Your task to perform on an android device: View the shopping cart on walmart. Image 0: 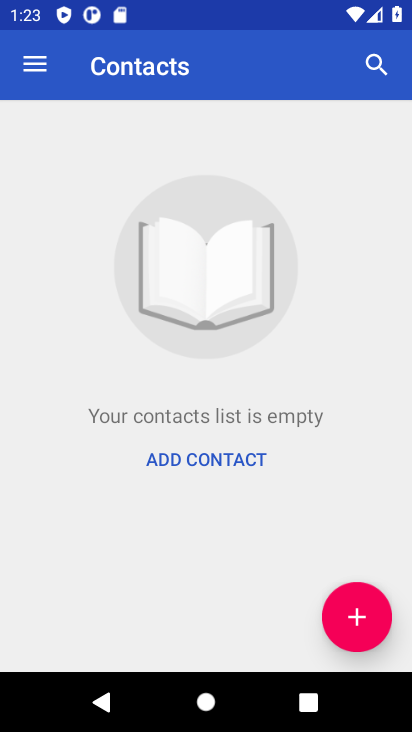
Step 0: press home button
Your task to perform on an android device: View the shopping cart on walmart. Image 1: 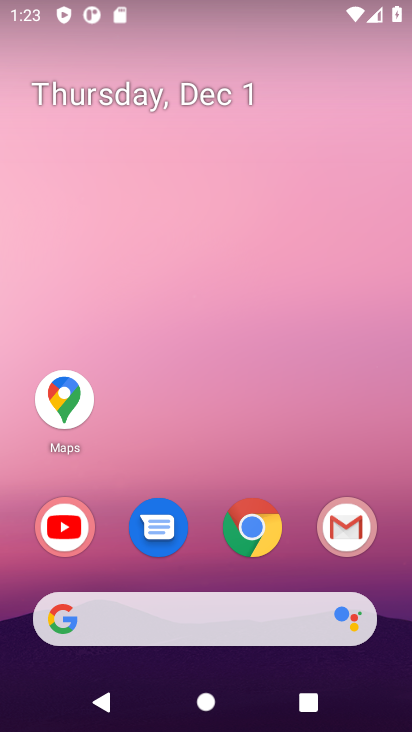
Step 1: click (262, 533)
Your task to perform on an android device: View the shopping cart on walmart. Image 2: 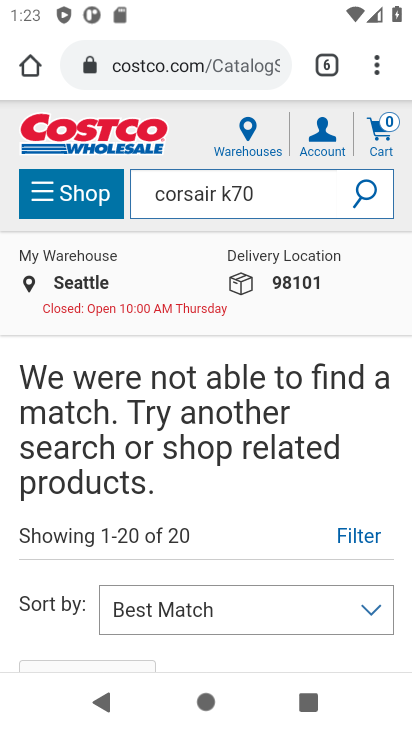
Step 2: click (182, 57)
Your task to perform on an android device: View the shopping cart on walmart. Image 3: 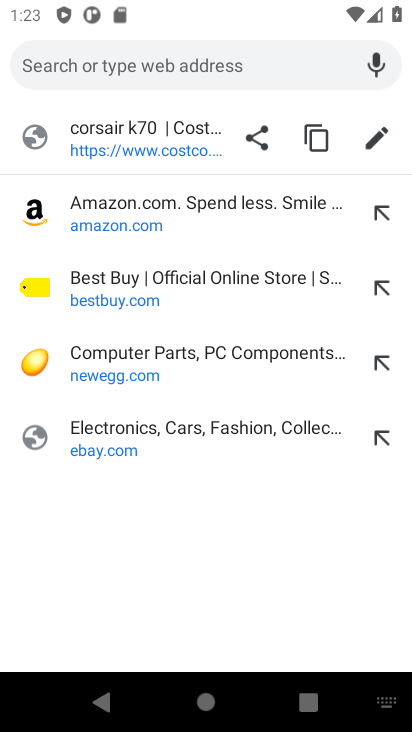
Step 3: type "walmart.com"
Your task to perform on an android device: View the shopping cart on walmart. Image 4: 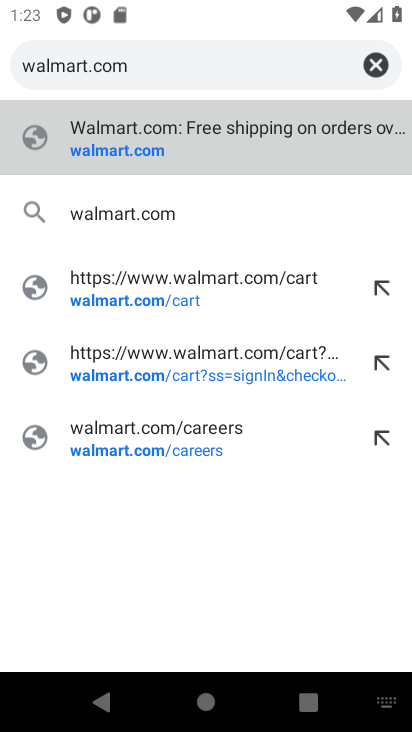
Step 4: click (103, 148)
Your task to perform on an android device: View the shopping cart on walmart. Image 5: 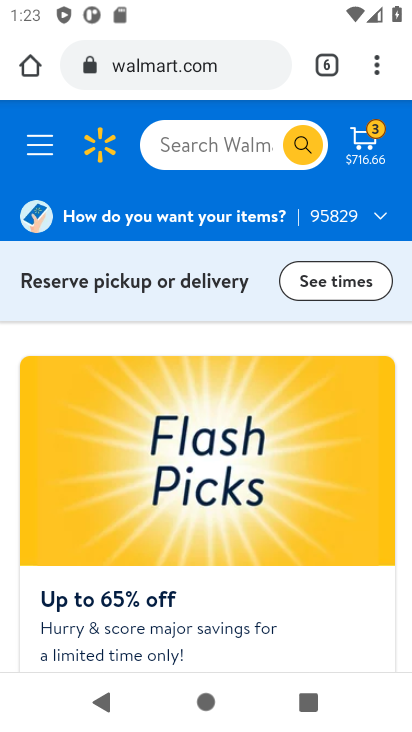
Step 5: click (368, 154)
Your task to perform on an android device: View the shopping cart on walmart. Image 6: 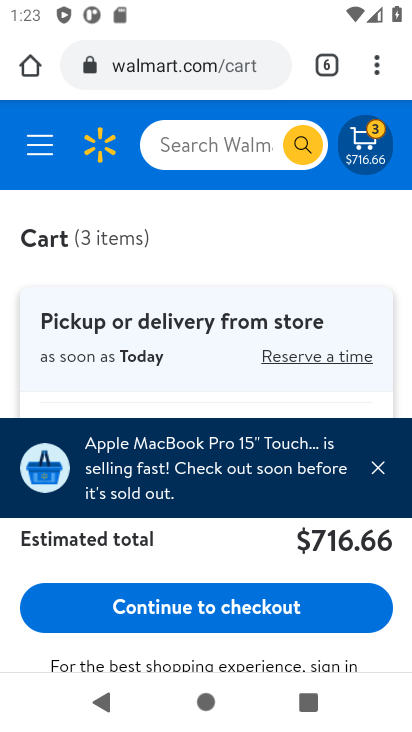
Step 6: task complete